Your task to perform on an android device: Go to network settings Image 0: 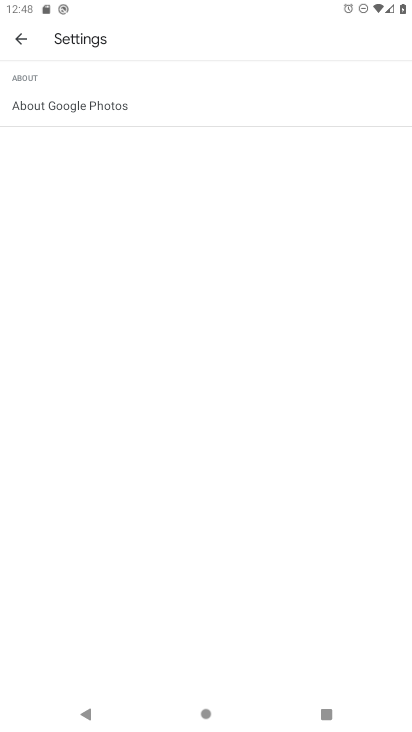
Step 0: press home button
Your task to perform on an android device: Go to network settings Image 1: 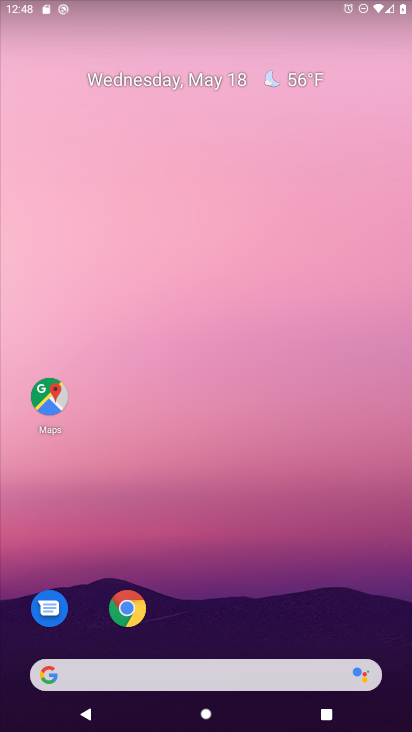
Step 1: drag from (260, 681) to (166, 183)
Your task to perform on an android device: Go to network settings Image 2: 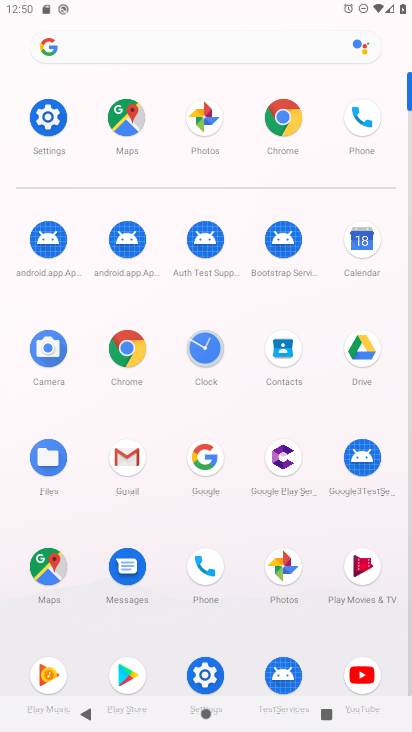
Step 2: click (38, 135)
Your task to perform on an android device: Go to network settings Image 3: 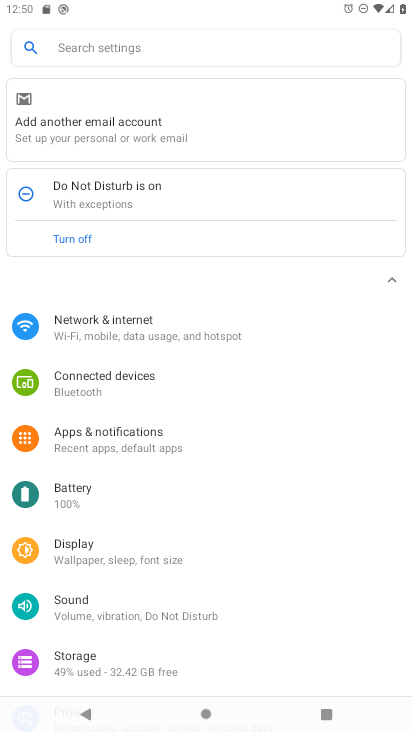
Step 3: click (141, 339)
Your task to perform on an android device: Go to network settings Image 4: 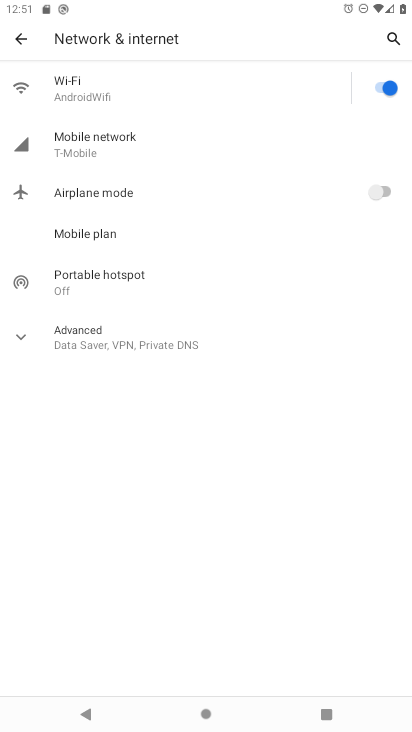
Step 4: task complete